Your task to perform on an android device: turn off improve location accuracy Image 0: 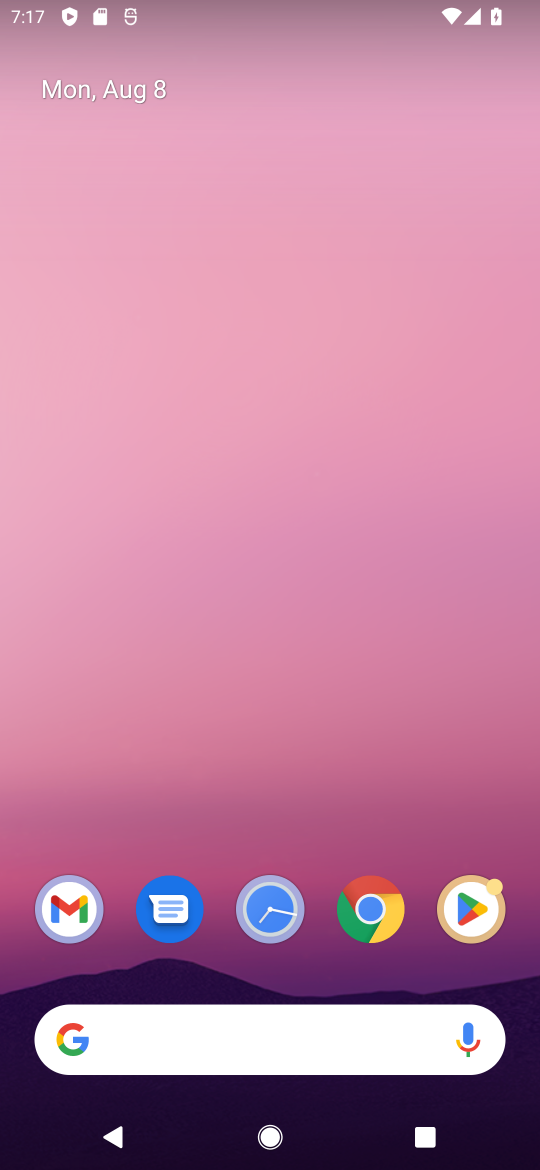
Step 0: drag from (302, 986) to (346, 205)
Your task to perform on an android device: turn off improve location accuracy Image 1: 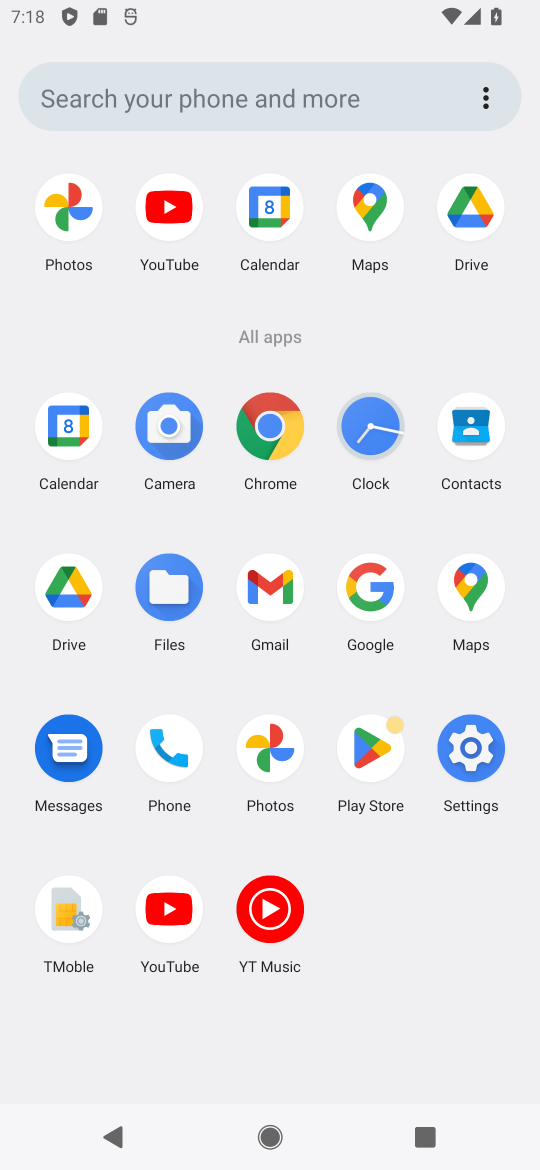
Step 1: click (485, 768)
Your task to perform on an android device: turn off improve location accuracy Image 2: 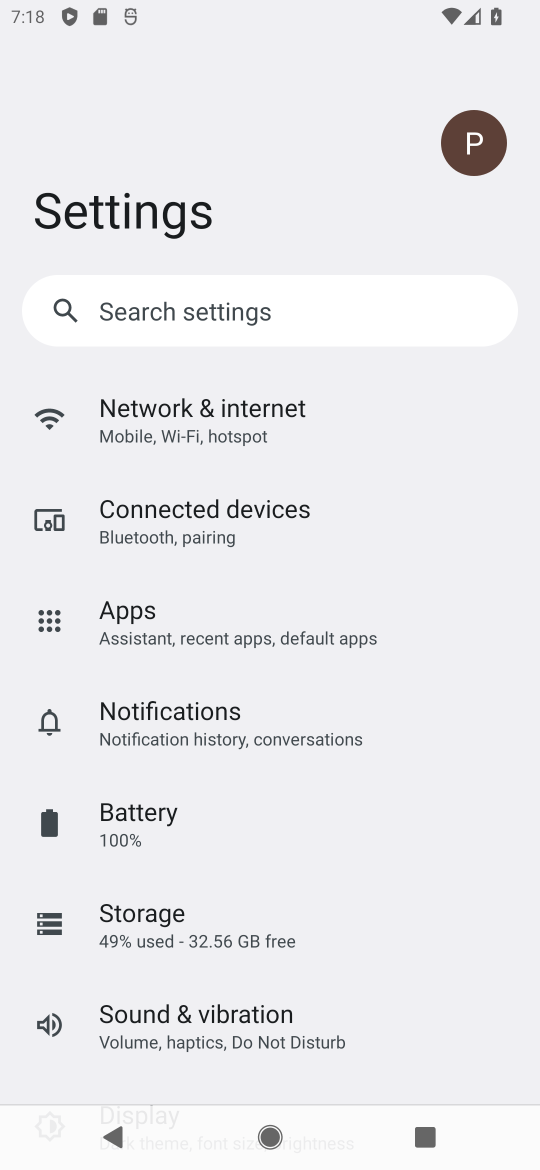
Step 2: drag from (226, 909) to (219, 365)
Your task to perform on an android device: turn off improve location accuracy Image 3: 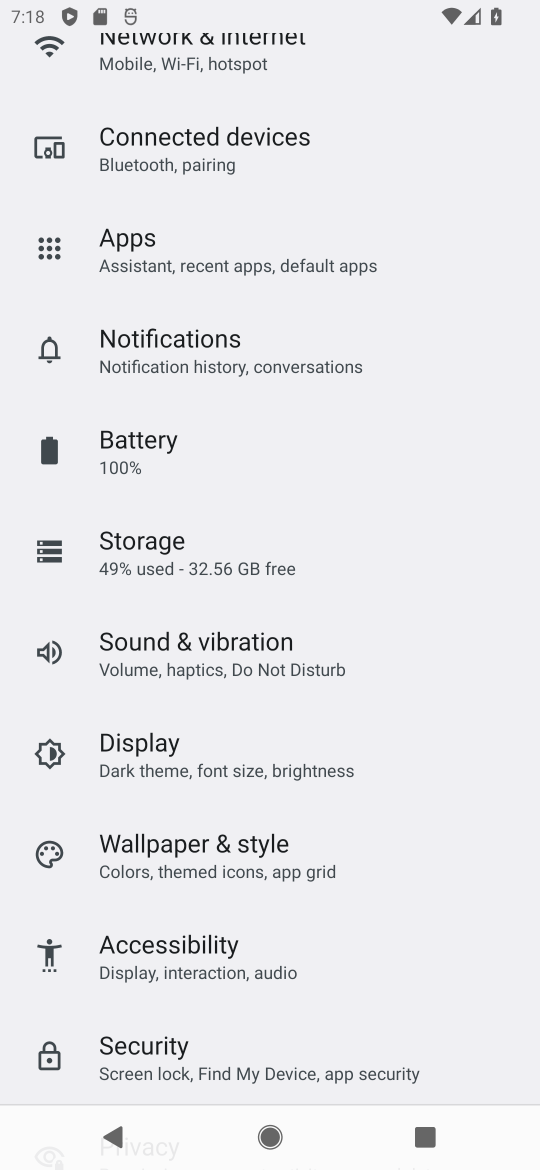
Step 3: drag from (217, 503) to (214, 957)
Your task to perform on an android device: turn off improve location accuracy Image 4: 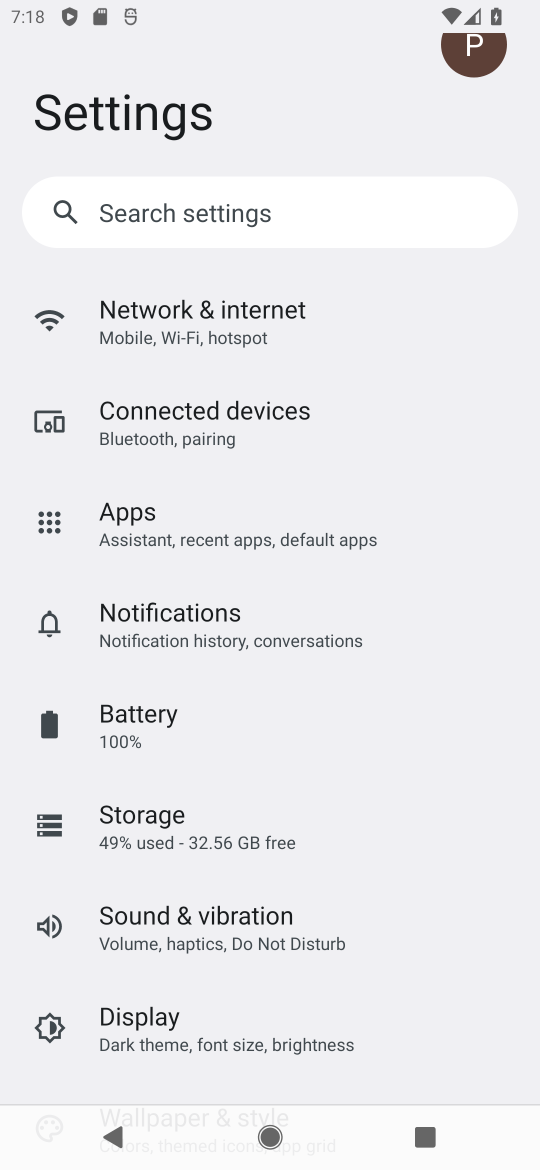
Step 4: drag from (209, 843) to (227, 226)
Your task to perform on an android device: turn off improve location accuracy Image 5: 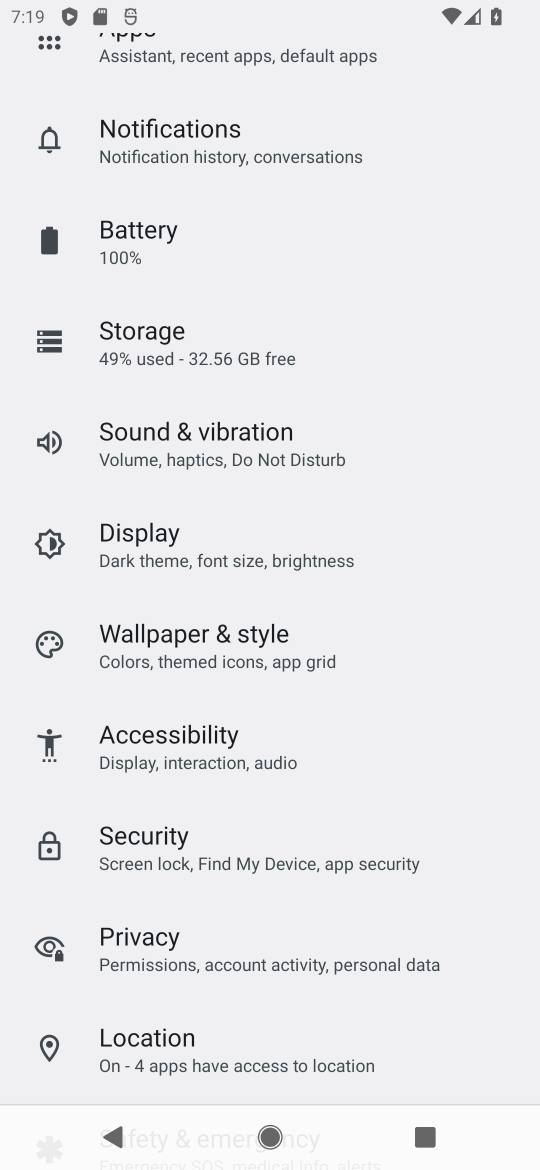
Step 5: click (161, 1041)
Your task to perform on an android device: turn off improve location accuracy Image 6: 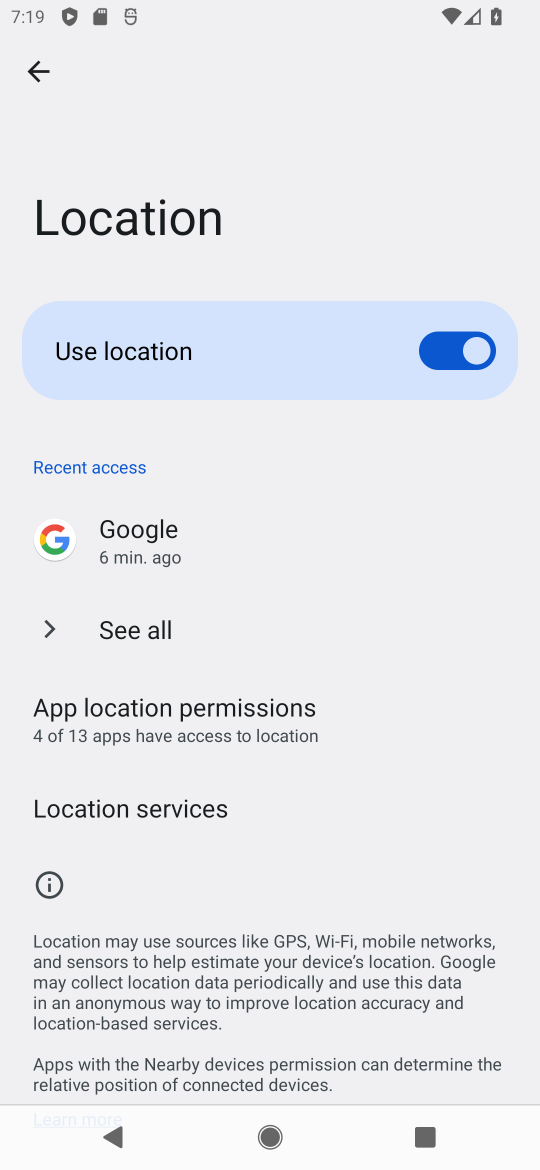
Step 6: click (152, 804)
Your task to perform on an android device: turn off improve location accuracy Image 7: 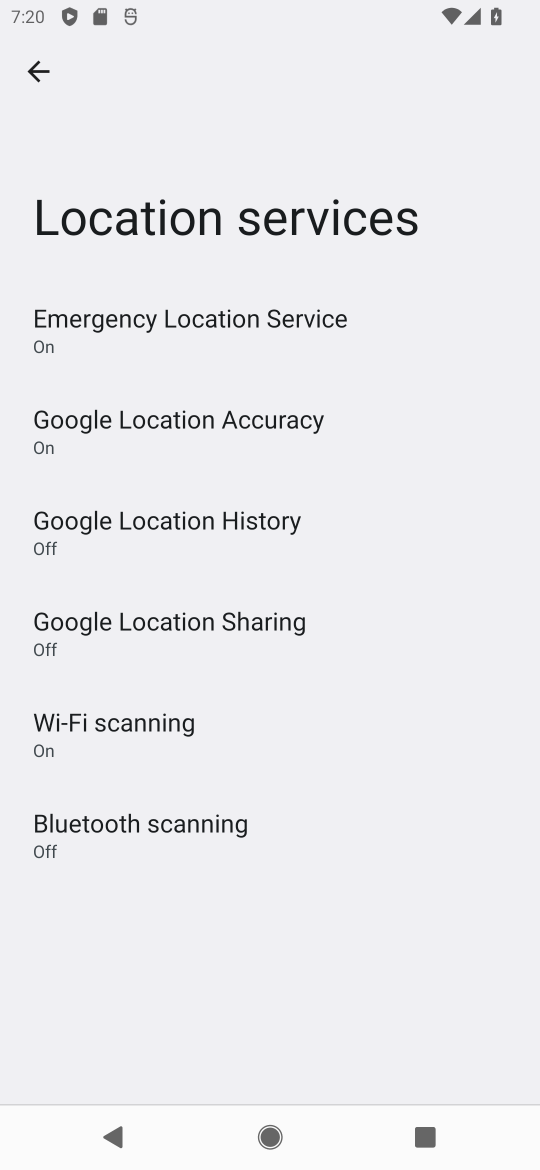
Step 7: click (282, 422)
Your task to perform on an android device: turn off improve location accuracy Image 8: 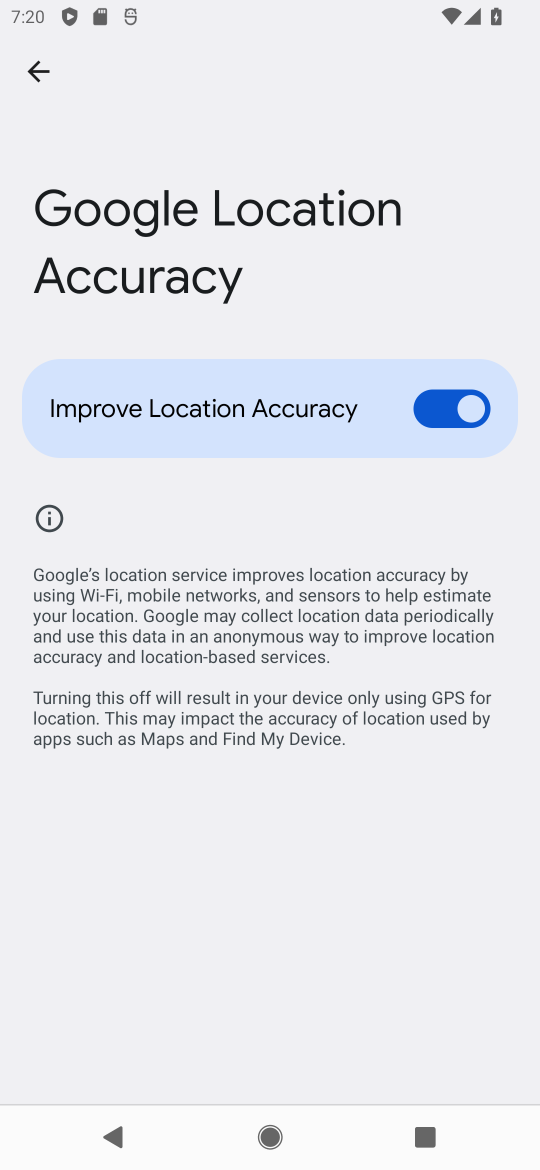
Step 8: click (441, 408)
Your task to perform on an android device: turn off improve location accuracy Image 9: 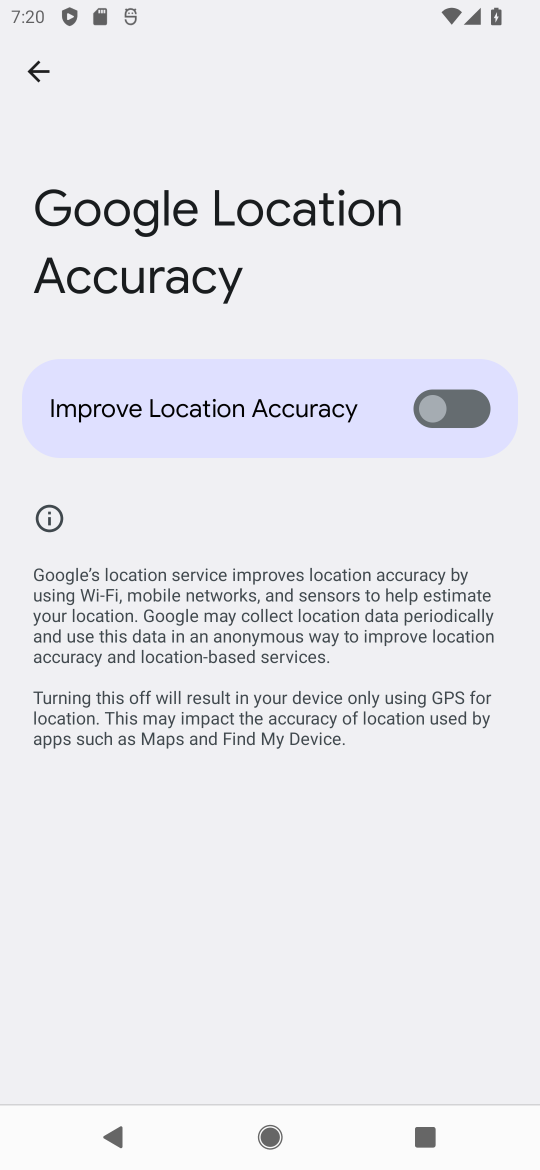
Step 9: task complete